Your task to perform on an android device: open app "Pandora - Music & Podcasts" (install if not already installed) Image 0: 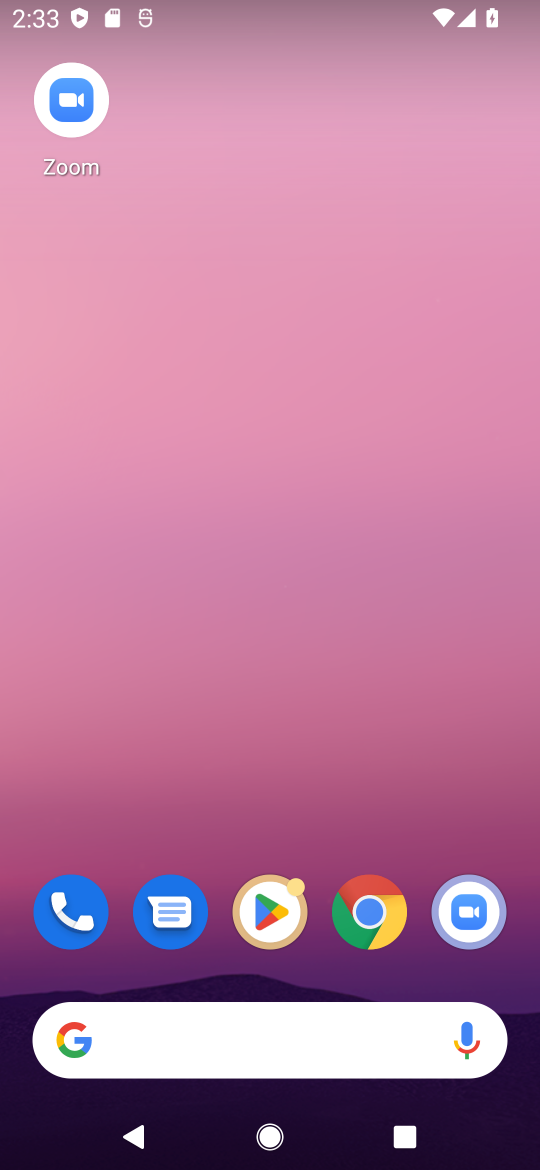
Step 0: drag from (266, 1034) to (288, 165)
Your task to perform on an android device: open app "Pandora - Music & Podcasts" (install if not already installed) Image 1: 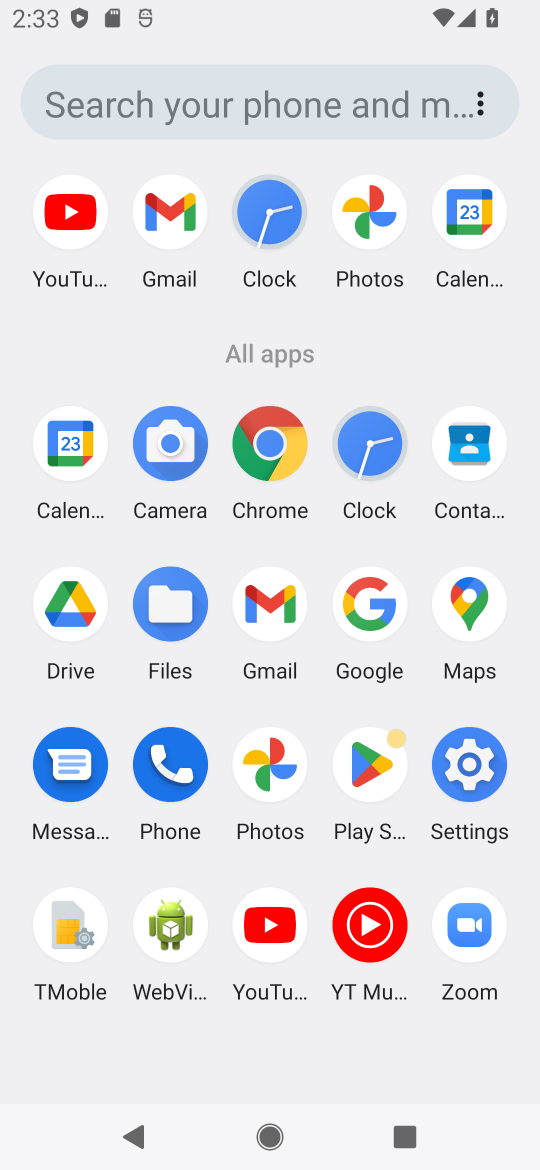
Step 1: click (380, 769)
Your task to perform on an android device: open app "Pandora - Music & Podcasts" (install if not already installed) Image 2: 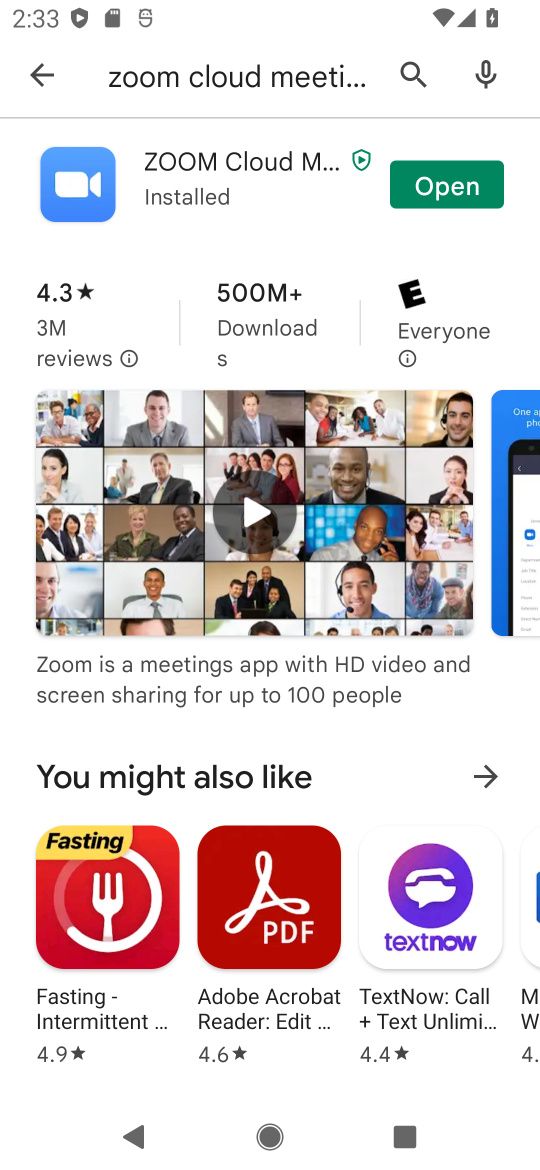
Step 2: press back button
Your task to perform on an android device: open app "Pandora - Music & Podcasts" (install if not already installed) Image 3: 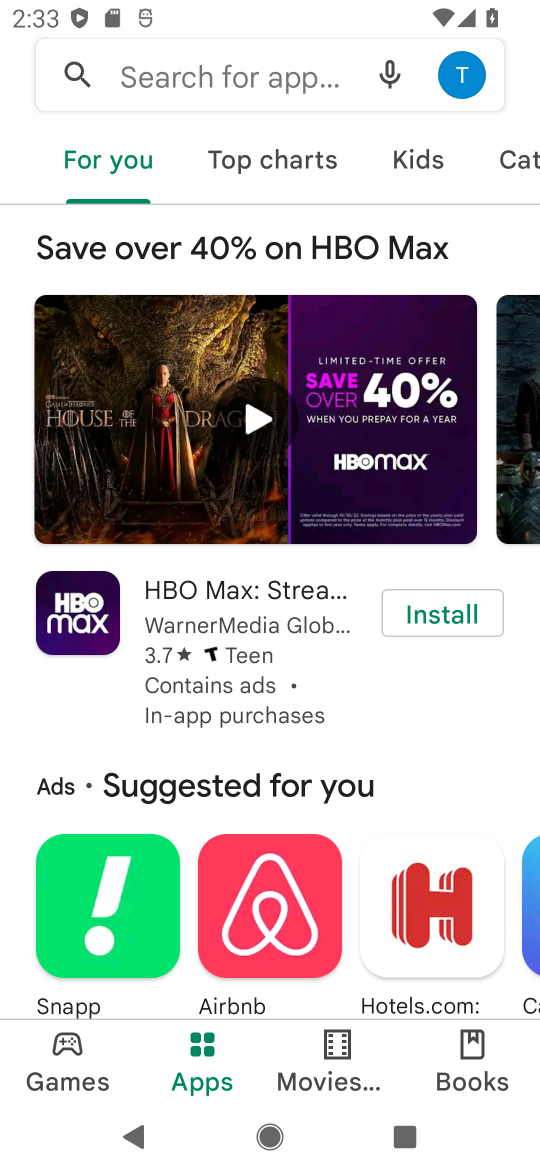
Step 3: click (260, 65)
Your task to perform on an android device: open app "Pandora - Music & Podcasts" (install if not already installed) Image 4: 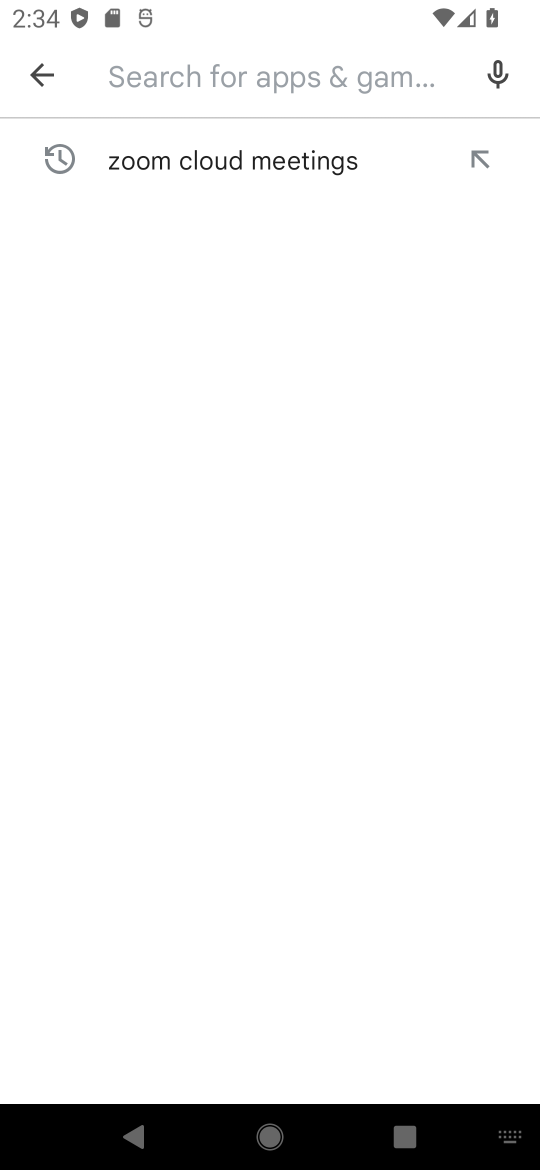
Step 4: type "Pandora"
Your task to perform on an android device: open app "Pandora - Music & Podcasts" (install if not already installed) Image 5: 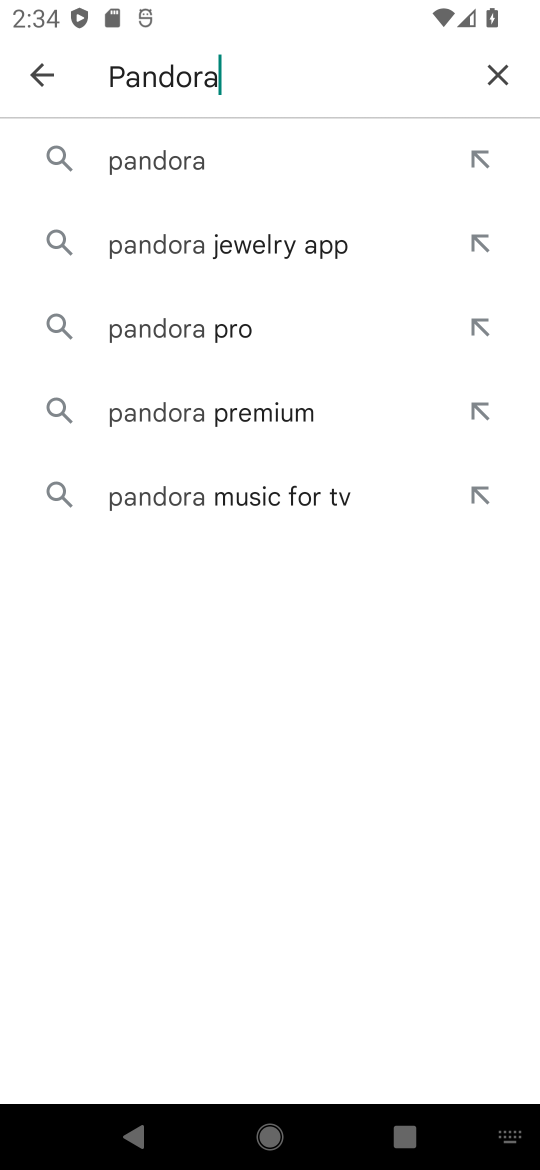
Step 5: click (172, 145)
Your task to perform on an android device: open app "Pandora - Music & Podcasts" (install if not already installed) Image 6: 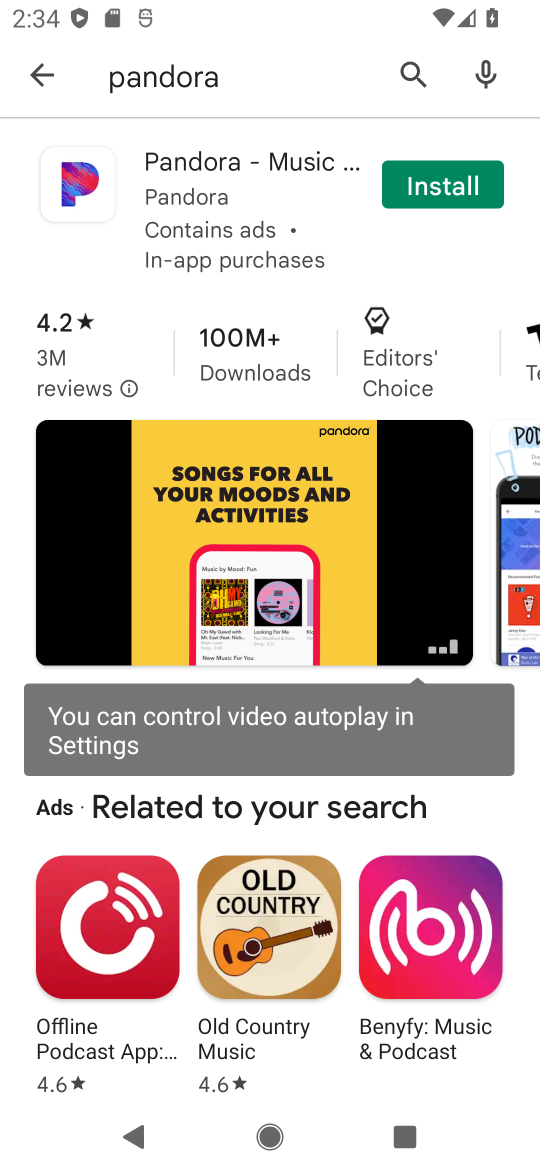
Step 6: click (419, 181)
Your task to perform on an android device: open app "Pandora - Music & Podcasts" (install if not already installed) Image 7: 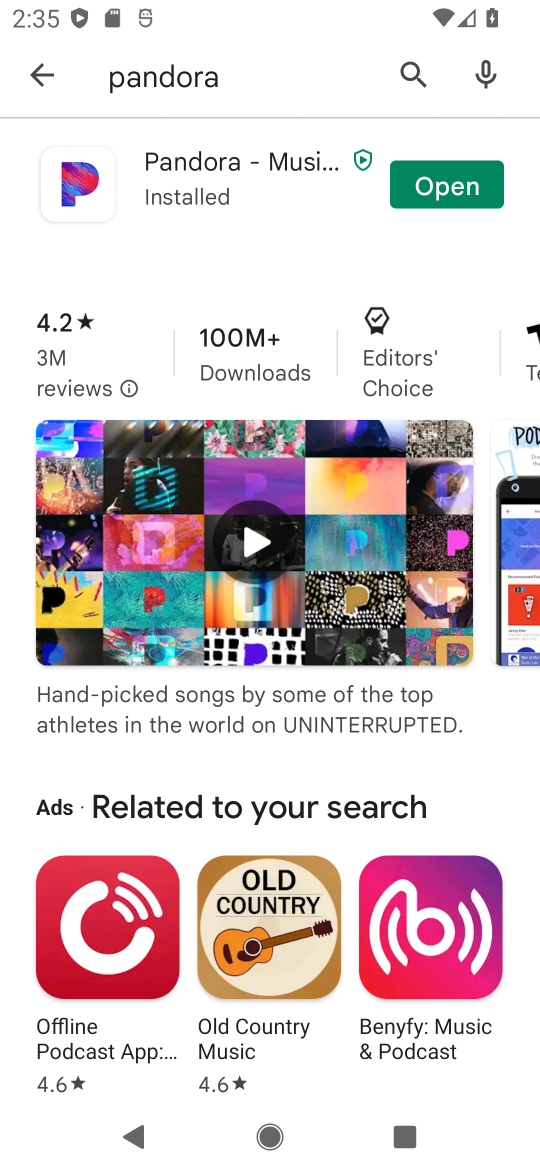
Step 7: click (465, 179)
Your task to perform on an android device: open app "Pandora - Music & Podcasts" (install if not already installed) Image 8: 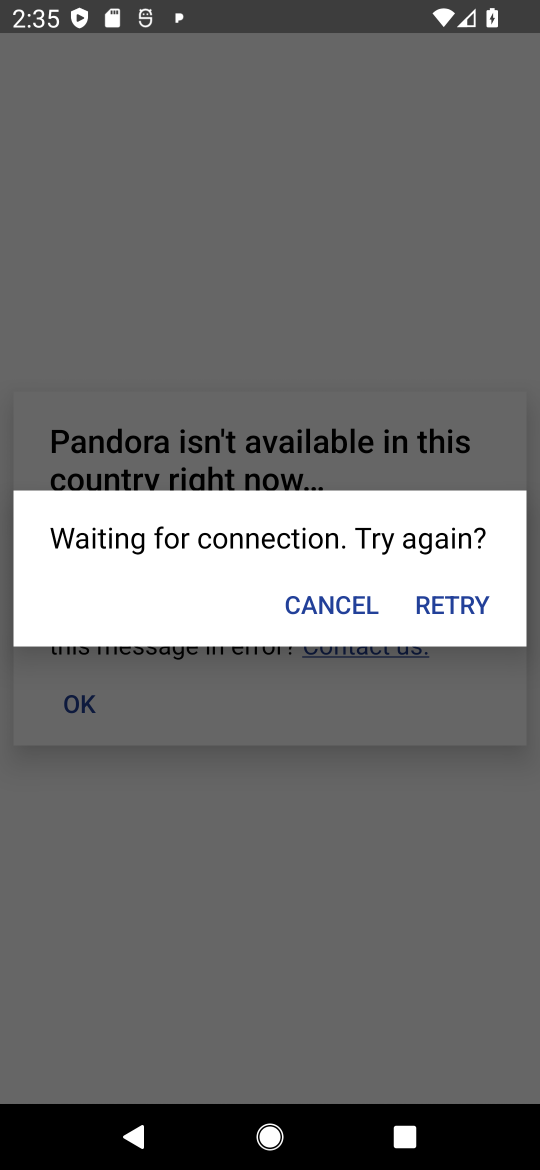
Step 8: click (464, 598)
Your task to perform on an android device: open app "Pandora - Music & Podcasts" (install if not already installed) Image 9: 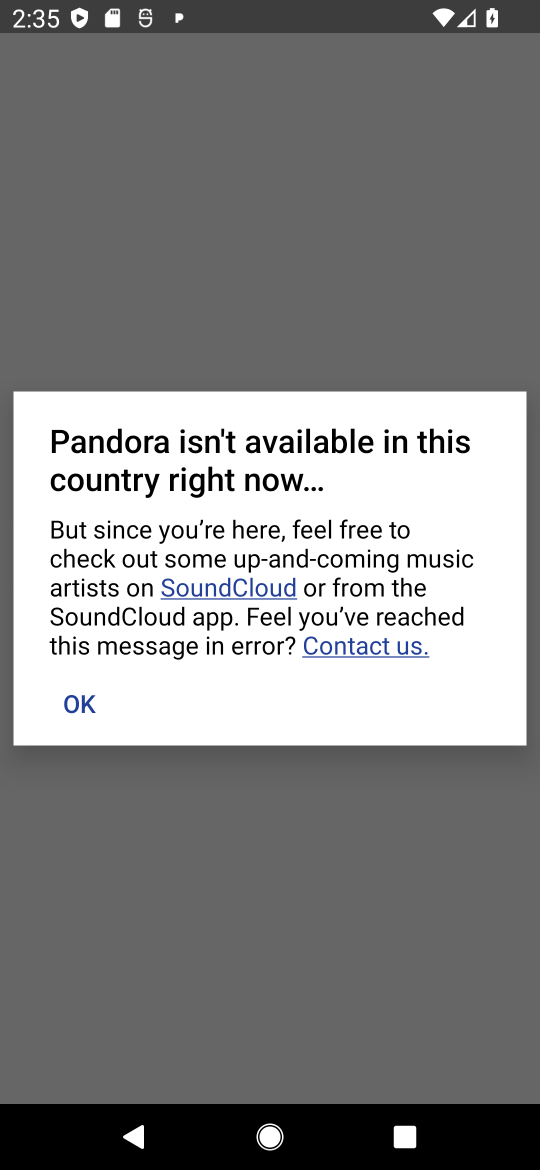
Step 9: click (78, 713)
Your task to perform on an android device: open app "Pandora - Music & Podcasts" (install if not already installed) Image 10: 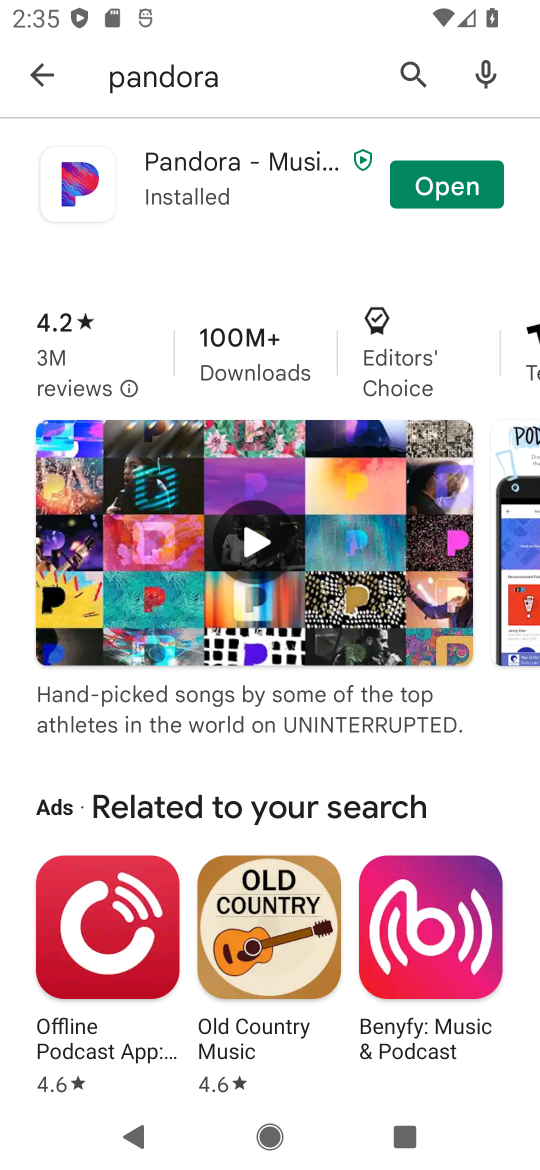
Step 10: click (454, 201)
Your task to perform on an android device: open app "Pandora - Music & Podcasts" (install if not already installed) Image 11: 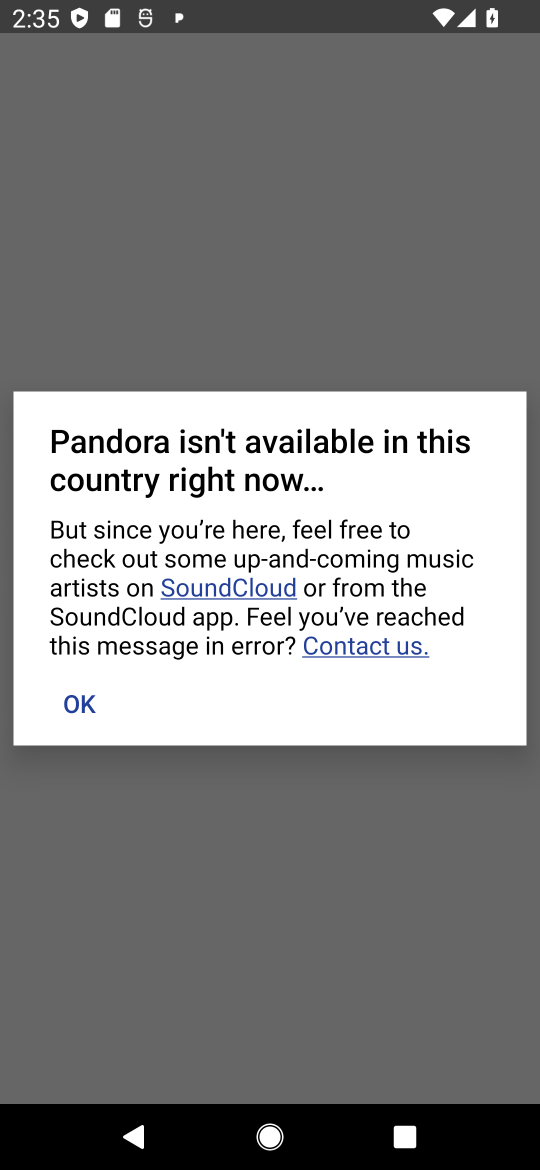
Step 11: click (60, 695)
Your task to perform on an android device: open app "Pandora - Music & Podcasts" (install if not already installed) Image 12: 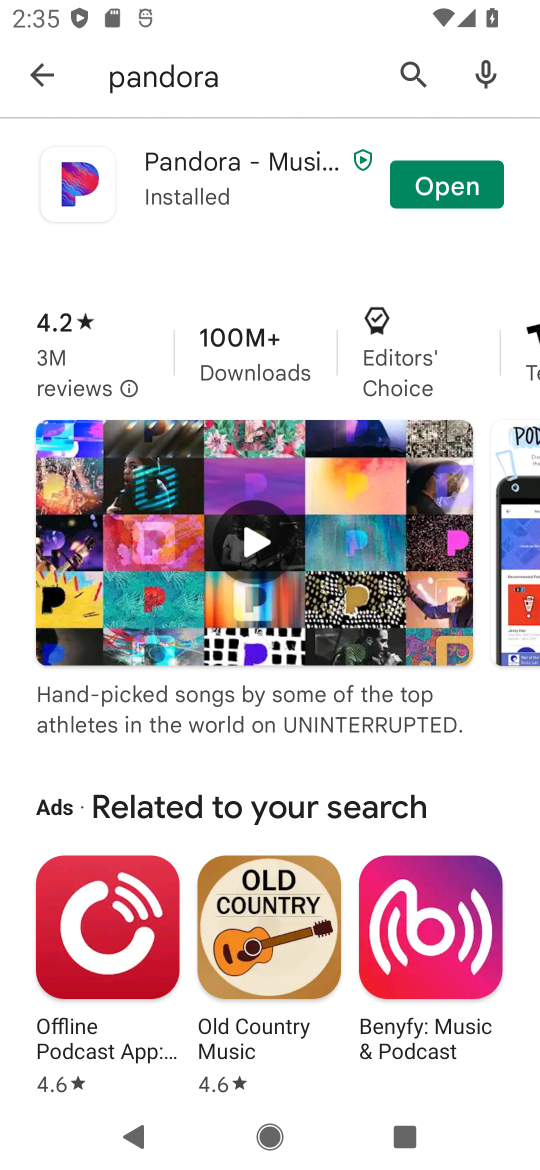
Step 12: task complete